Your task to perform on an android device: toggle javascript in the chrome app Image 0: 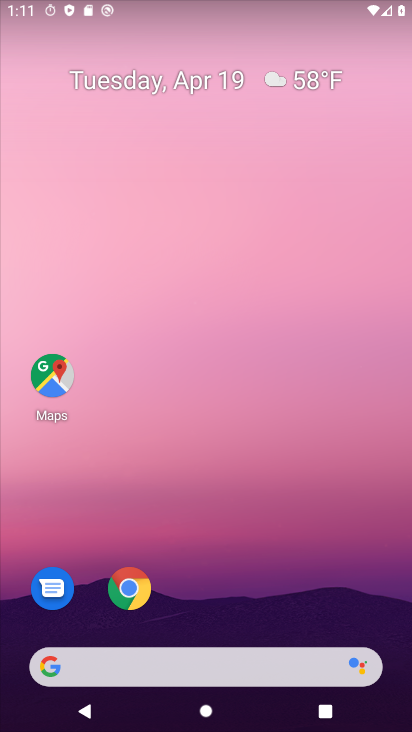
Step 0: click (129, 575)
Your task to perform on an android device: toggle javascript in the chrome app Image 1: 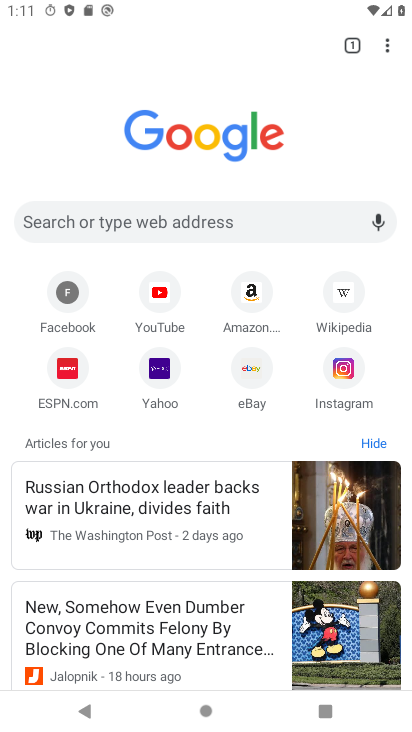
Step 1: click (390, 51)
Your task to perform on an android device: toggle javascript in the chrome app Image 2: 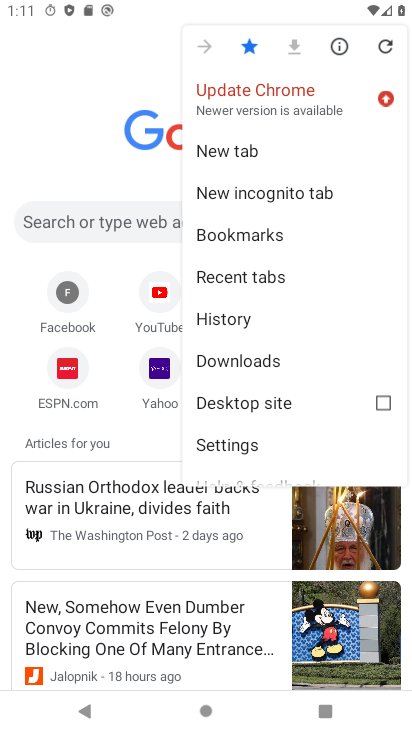
Step 2: click (230, 443)
Your task to perform on an android device: toggle javascript in the chrome app Image 3: 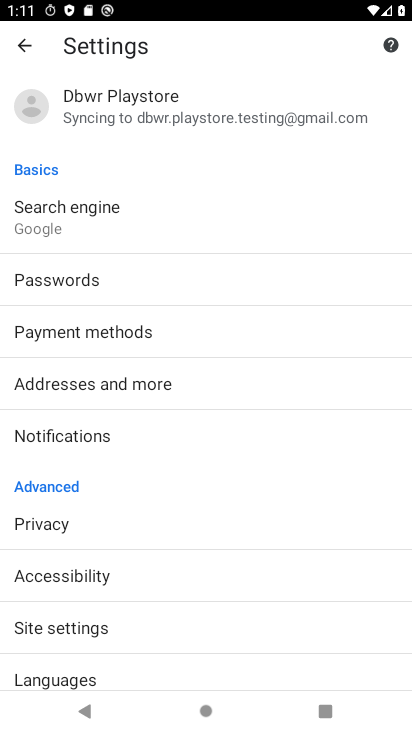
Step 3: click (143, 627)
Your task to perform on an android device: toggle javascript in the chrome app Image 4: 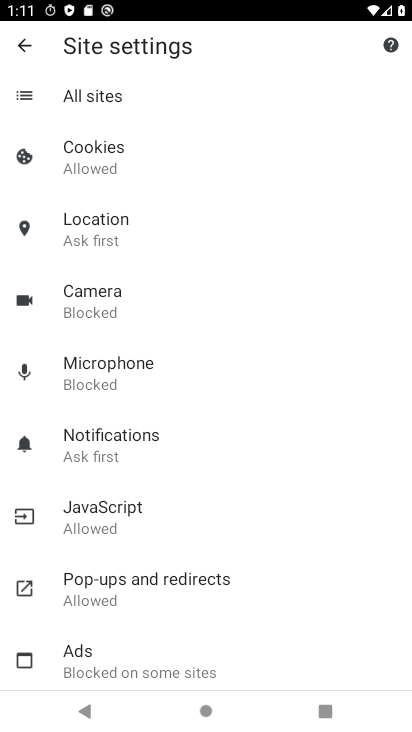
Step 4: click (129, 505)
Your task to perform on an android device: toggle javascript in the chrome app Image 5: 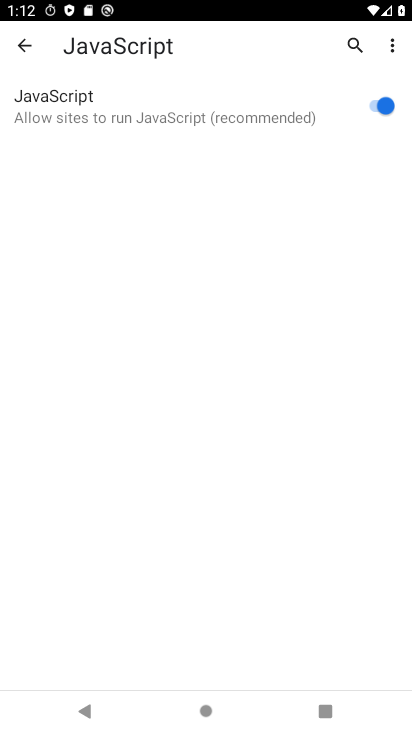
Step 5: click (370, 107)
Your task to perform on an android device: toggle javascript in the chrome app Image 6: 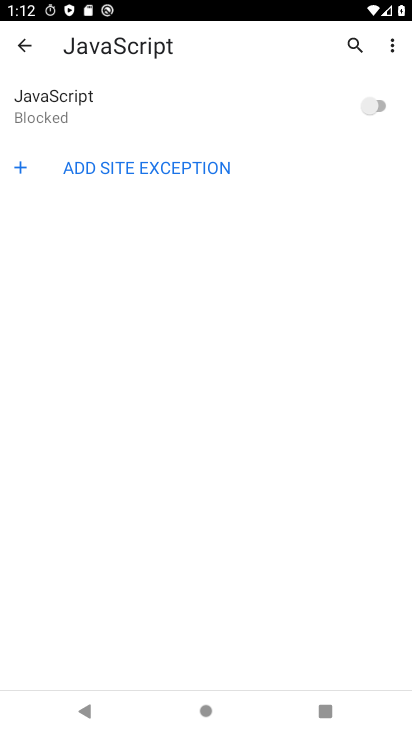
Step 6: task complete